Your task to perform on an android device: Go to Google Image 0: 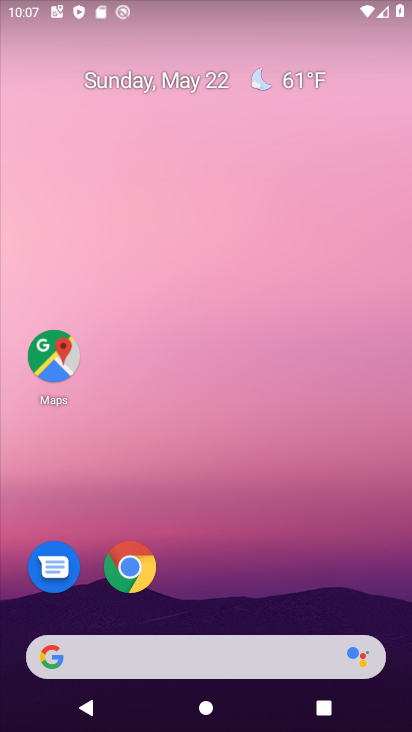
Step 0: drag from (198, 604) to (91, 5)
Your task to perform on an android device: Go to Google Image 1: 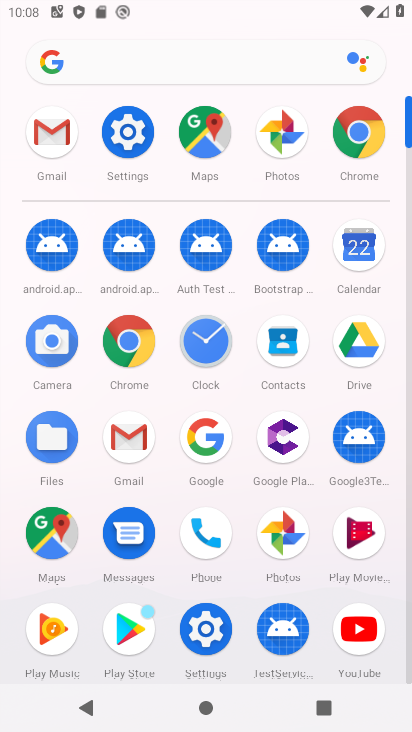
Step 1: click (205, 435)
Your task to perform on an android device: Go to Google Image 2: 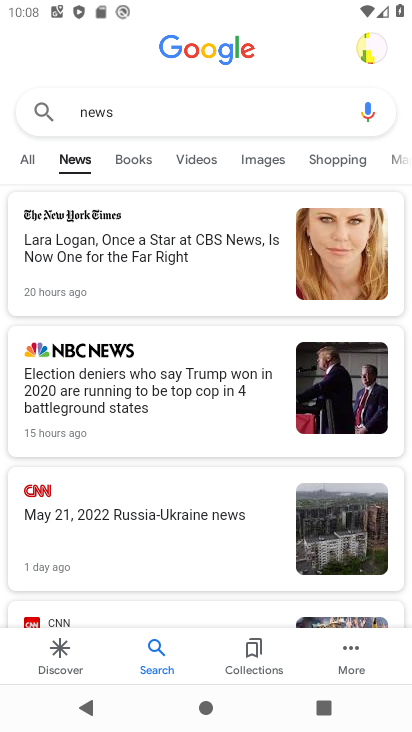
Step 2: task complete